Your task to perform on an android device: all mails in gmail Image 0: 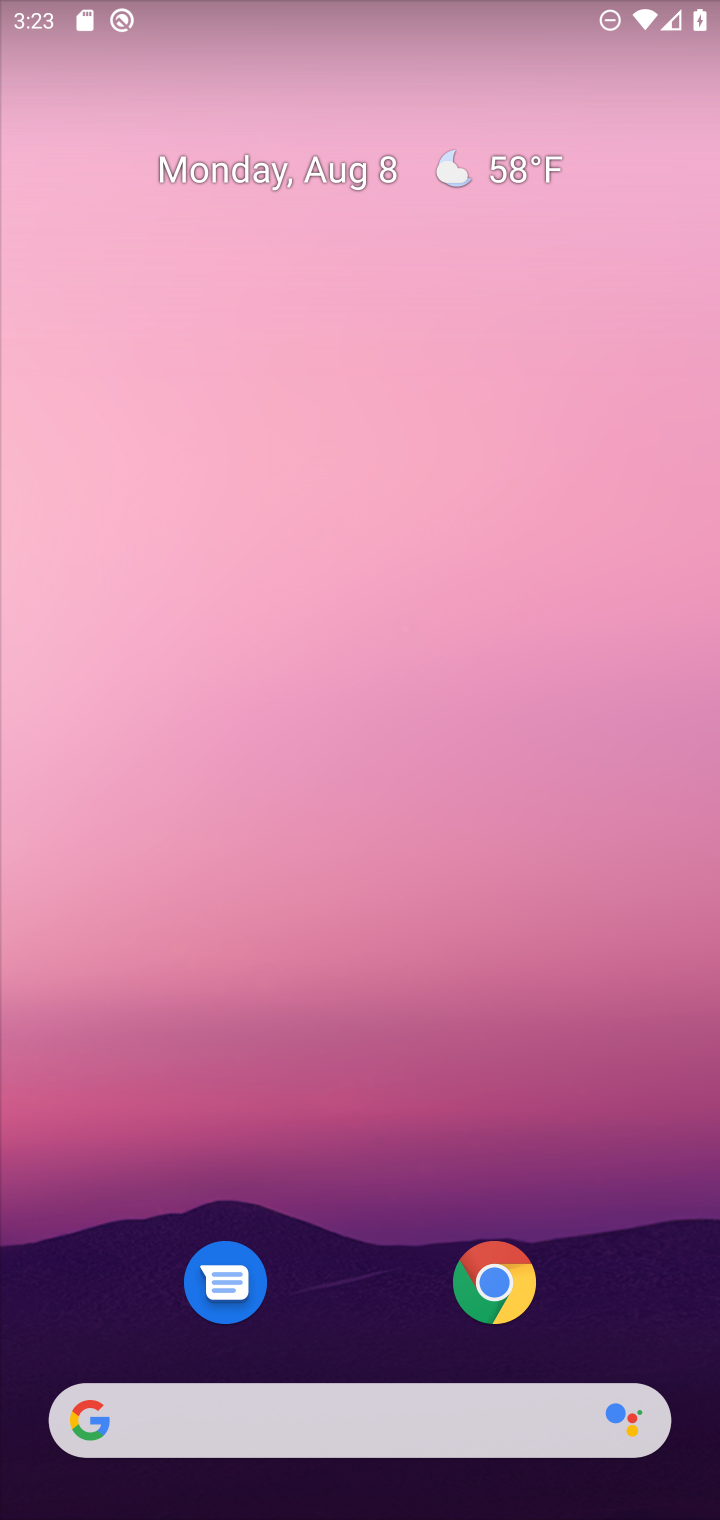
Step 0: press home button
Your task to perform on an android device: all mails in gmail Image 1: 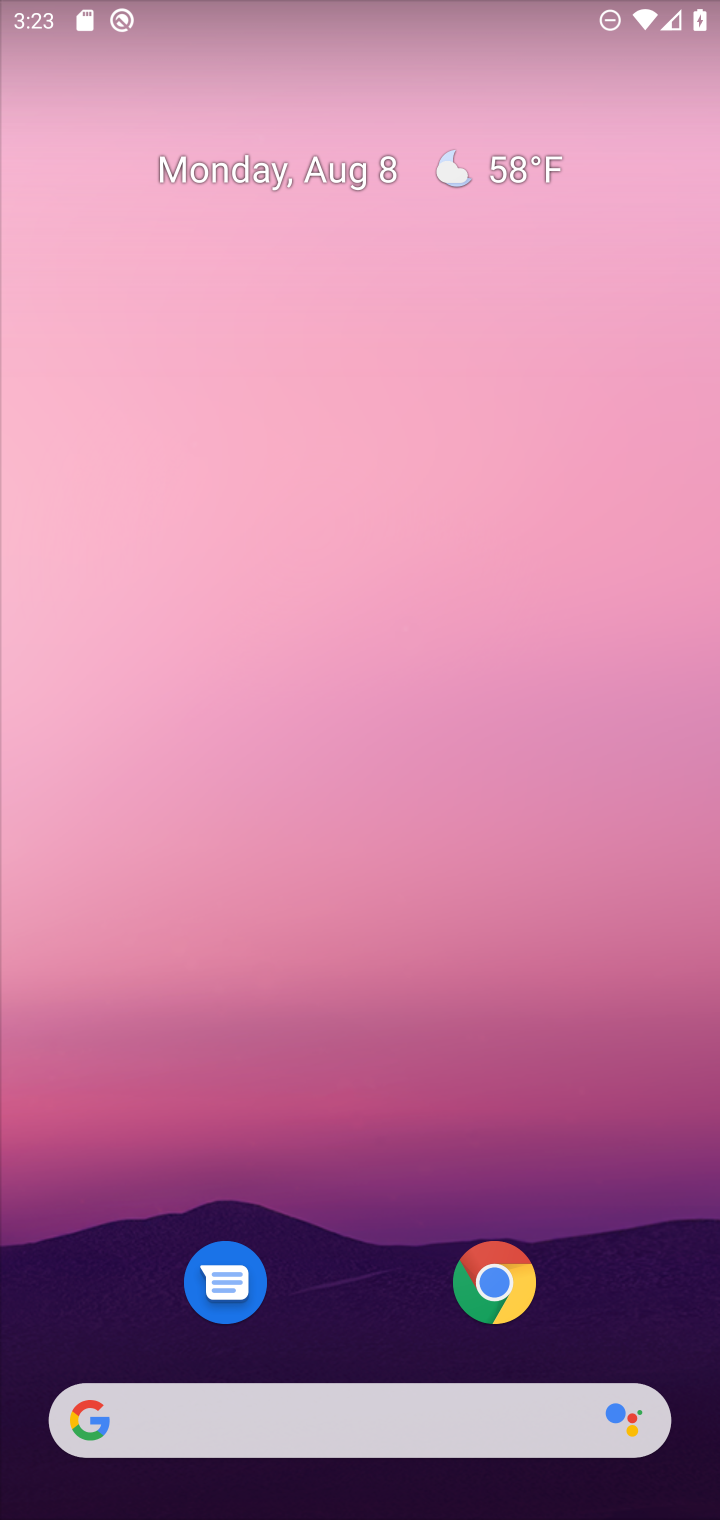
Step 1: press home button
Your task to perform on an android device: all mails in gmail Image 2: 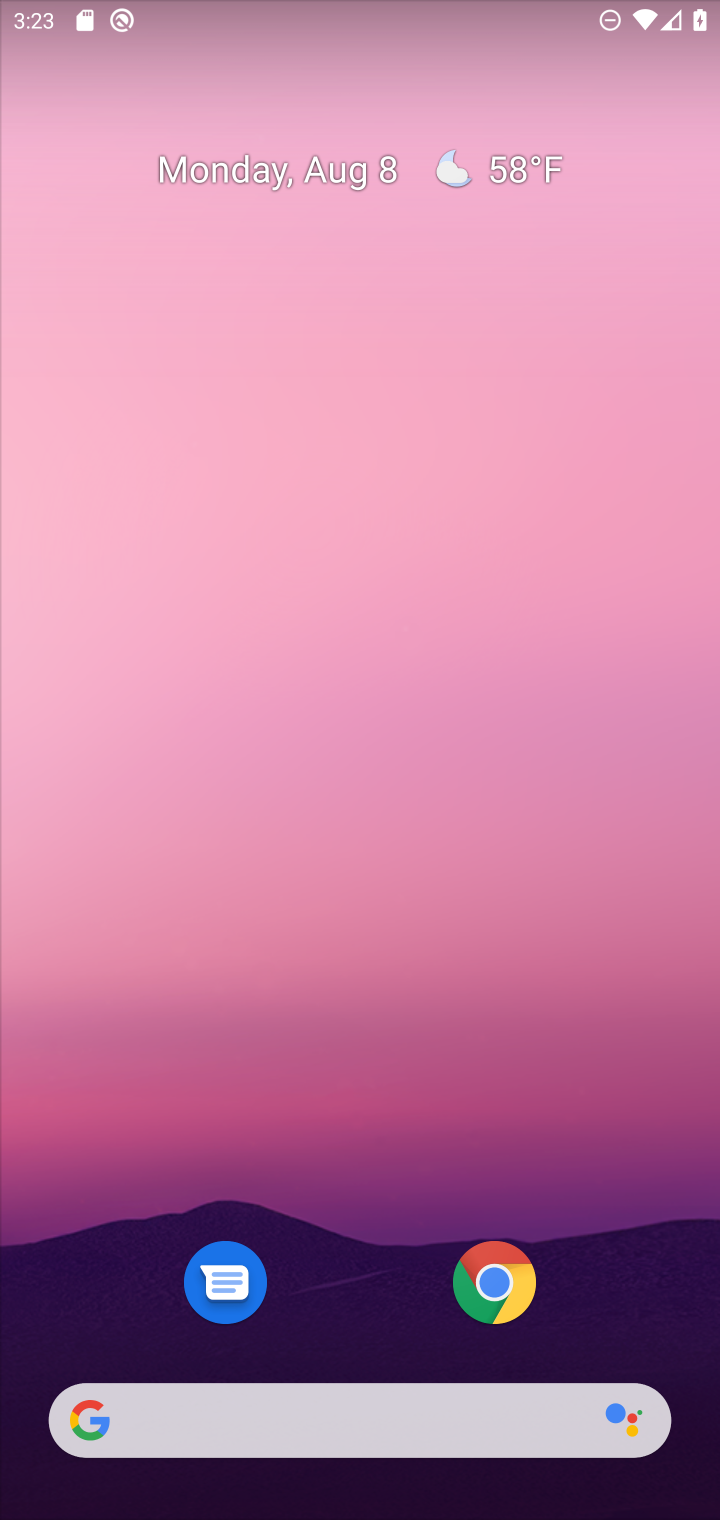
Step 2: drag from (355, 1243) to (471, 131)
Your task to perform on an android device: all mails in gmail Image 3: 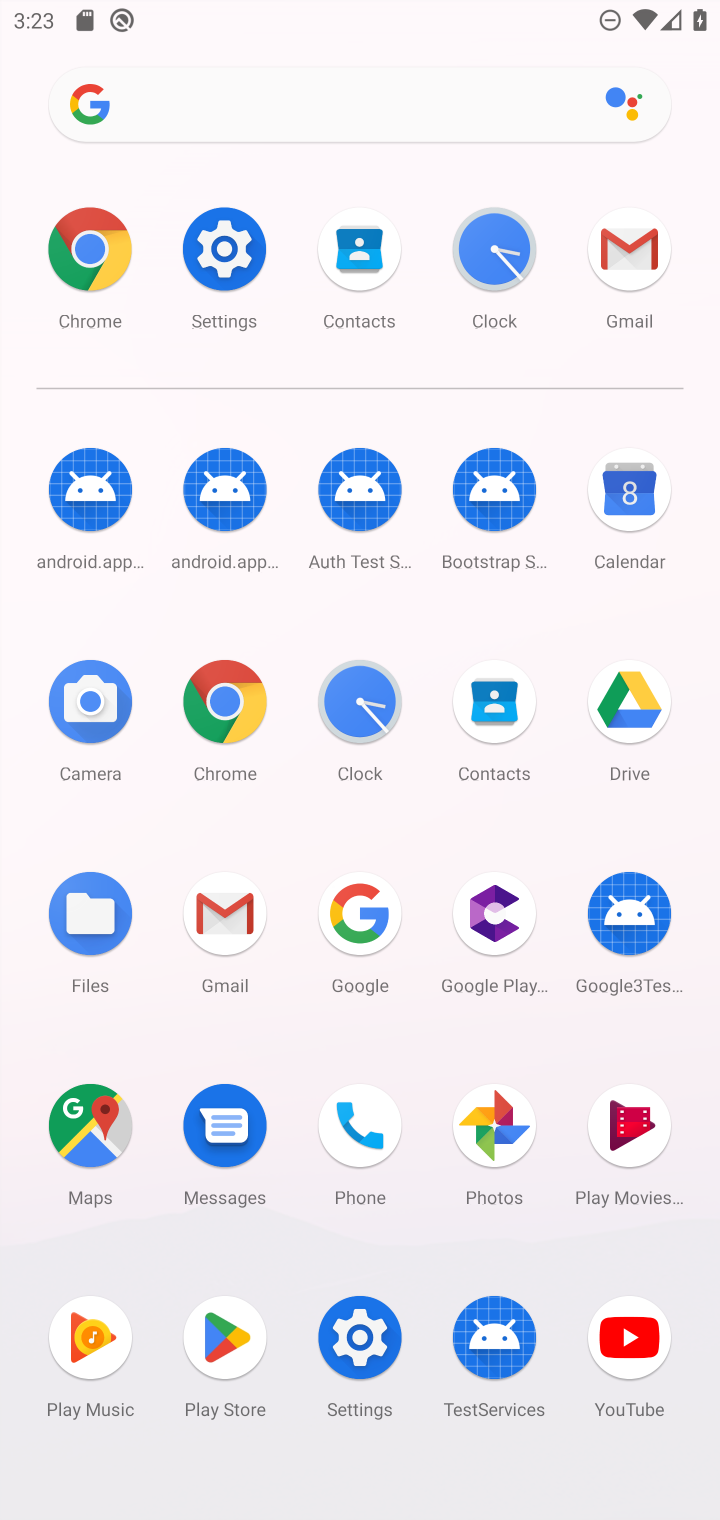
Step 3: click (218, 889)
Your task to perform on an android device: all mails in gmail Image 4: 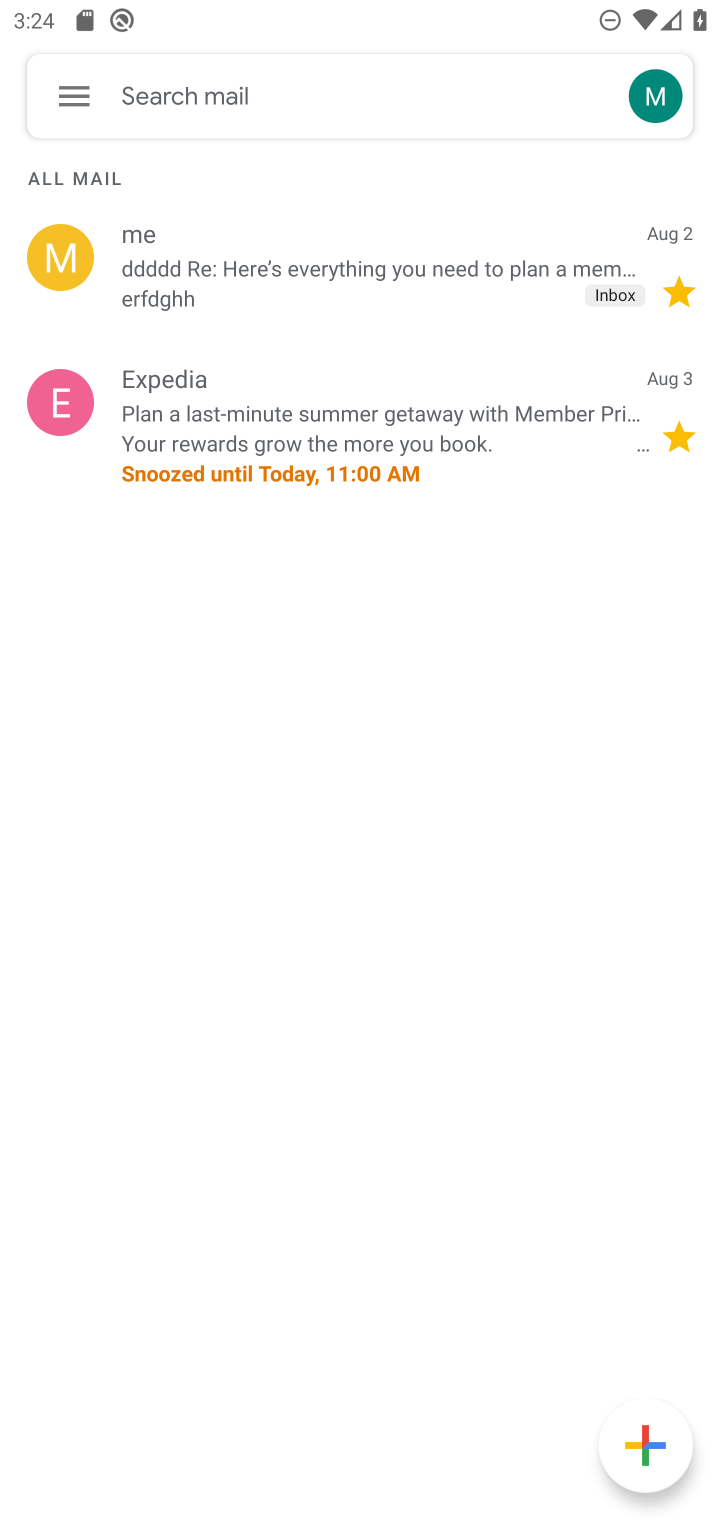
Step 4: task complete